Your task to perform on an android device: Go to Reddit.com Image 0: 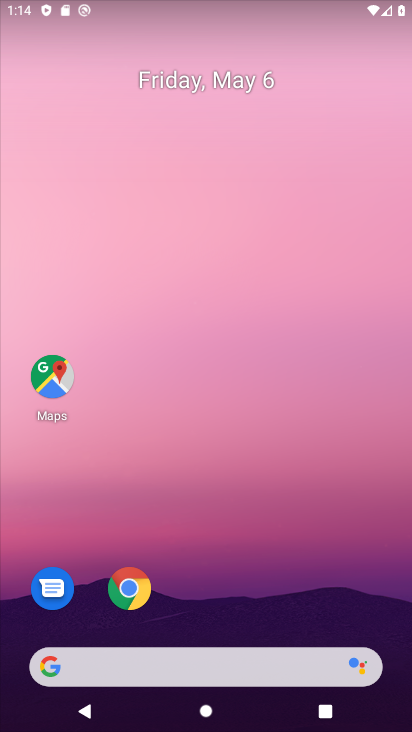
Step 0: drag from (358, 617) to (376, 99)
Your task to perform on an android device: Go to Reddit.com Image 1: 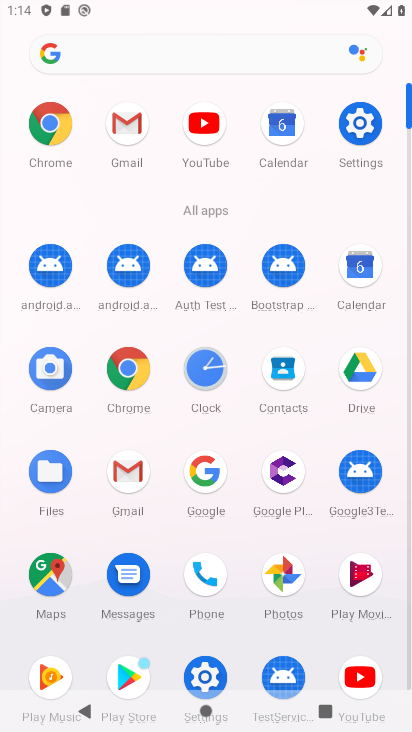
Step 1: click (56, 133)
Your task to perform on an android device: Go to Reddit.com Image 2: 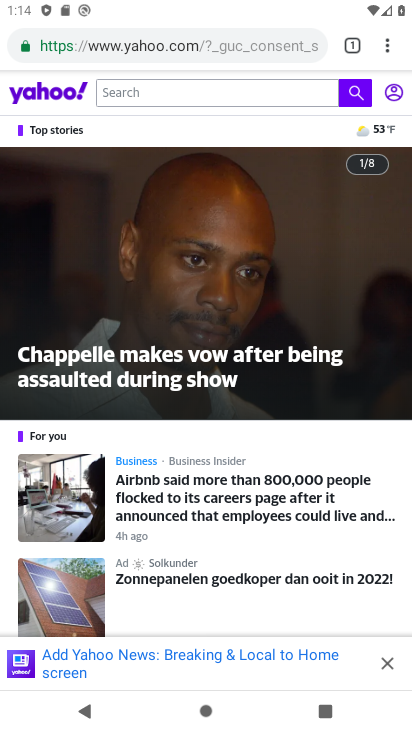
Step 2: click (222, 44)
Your task to perform on an android device: Go to Reddit.com Image 3: 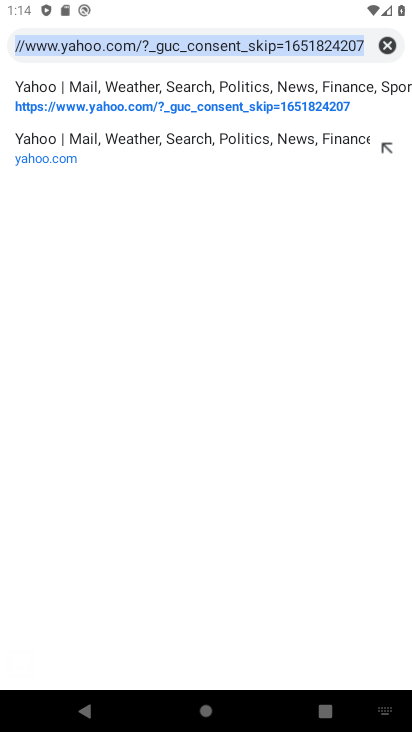
Step 3: click (388, 45)
Your task to perform on an android device: Go to Reddit.com Image 4: 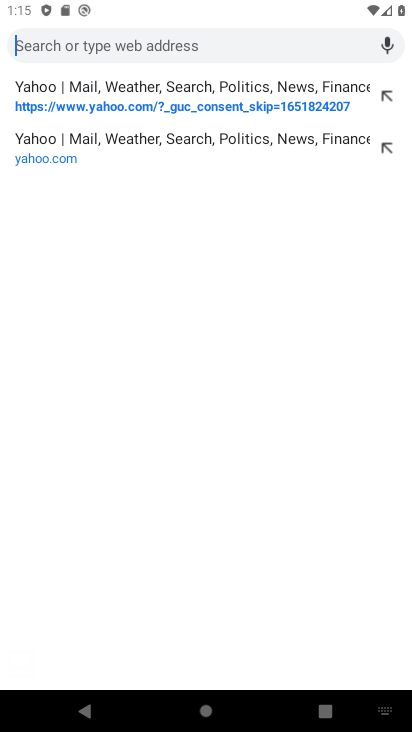
Step 4: type "reddit.com"
Your task to perform on an android device: Go to Reddit.com Image 5: 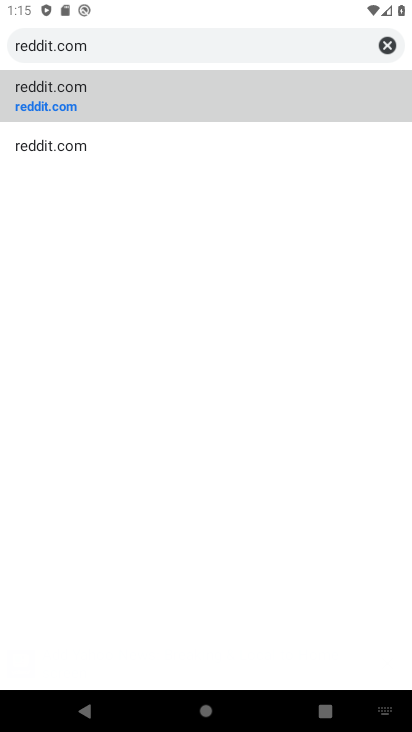
Step 5: click (67, 111)
Your task to perform on an android device: Go to Reddit.com Image 6: 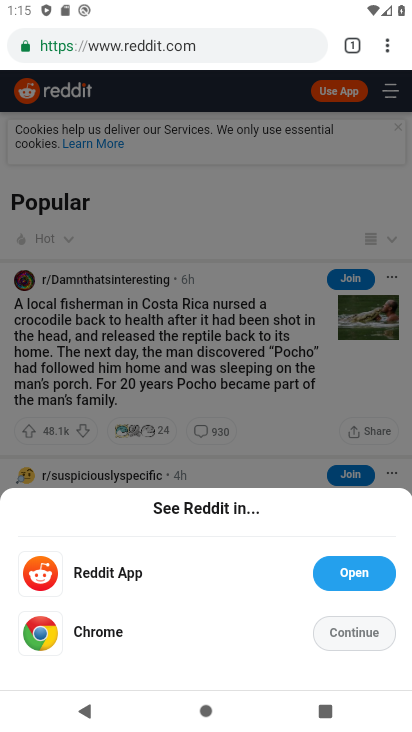
Step 6: task complete